Your task to perform on an android device: Clear all items from cart on bestbuy.com. Image 0: 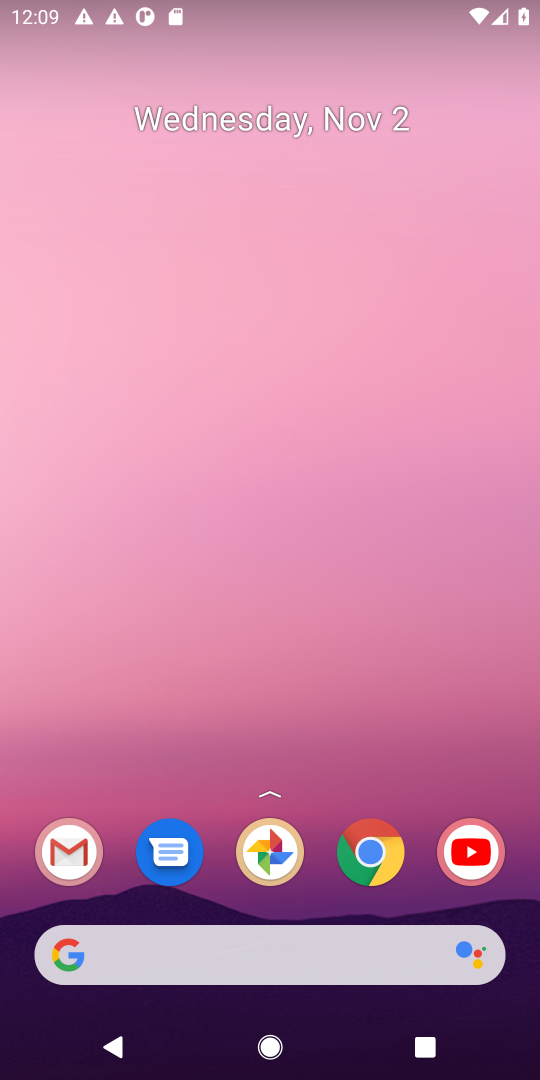
Step 0: click (71, 955)
Your task to perform on an android device: Clear all items from cart on bestbuy.com. Image 1: 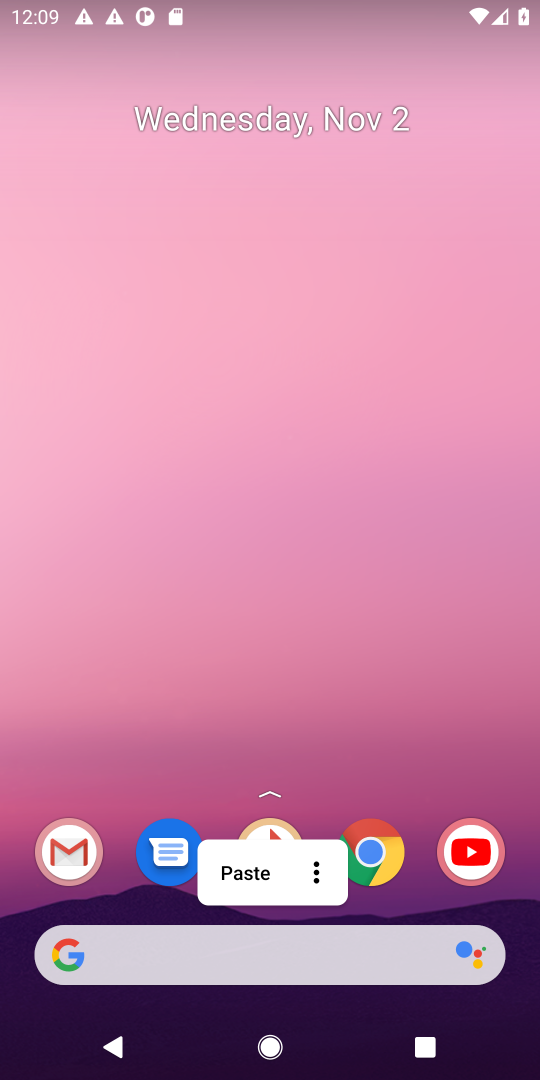
Step 1: click (77, 956)
Your task to perform on an android device: Clear all items from cart on bestbuy.com. Image 2: 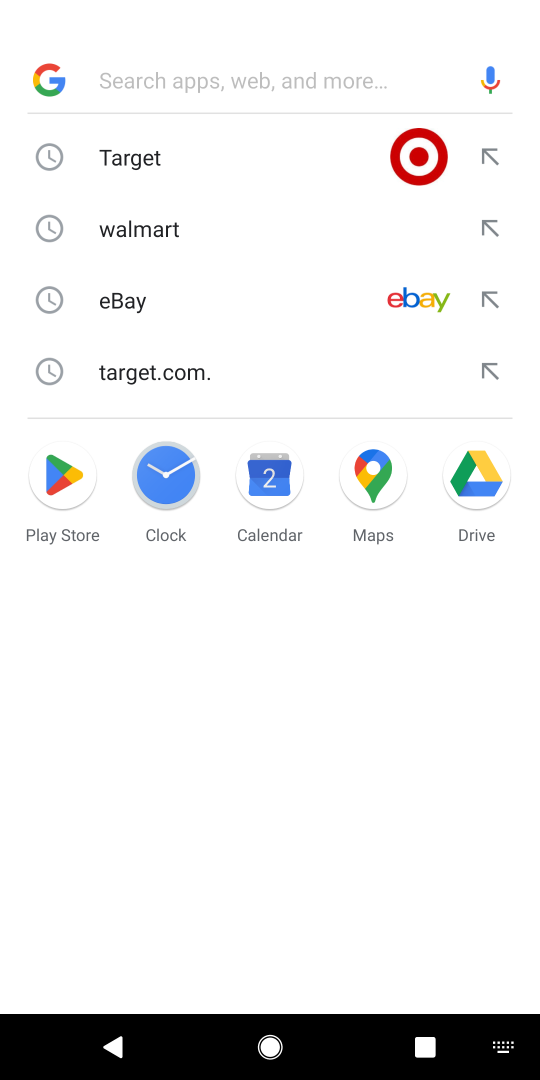
Step 2: type " bestbuy.com"
Your task to perform on an android device: Clear all items from cart on bestbuy.com. Image 3: 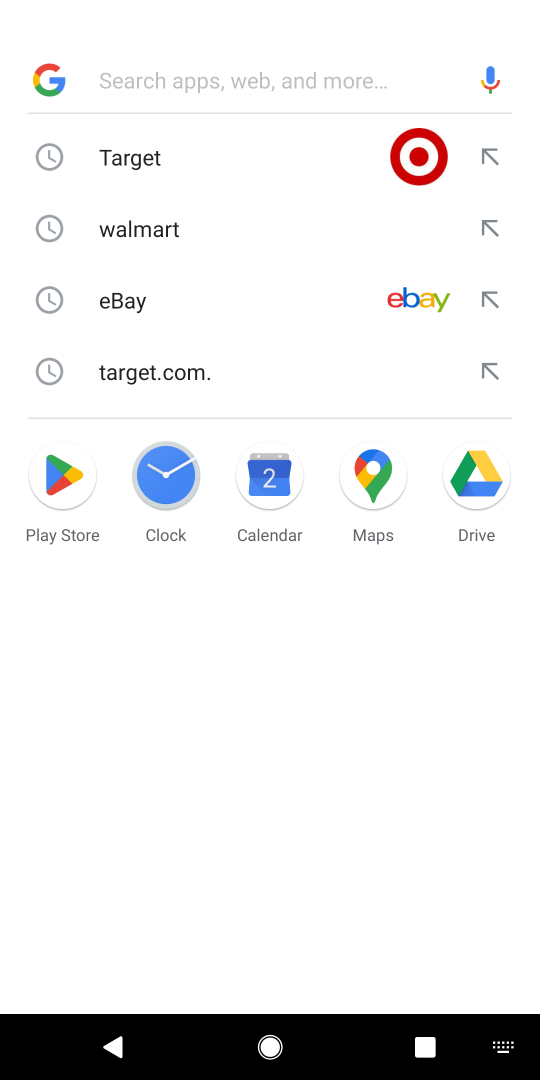
Step 3: click (168, 69)
Your task to perform on an android device: Clear all items from cart on bestbuy.com. Image 4: 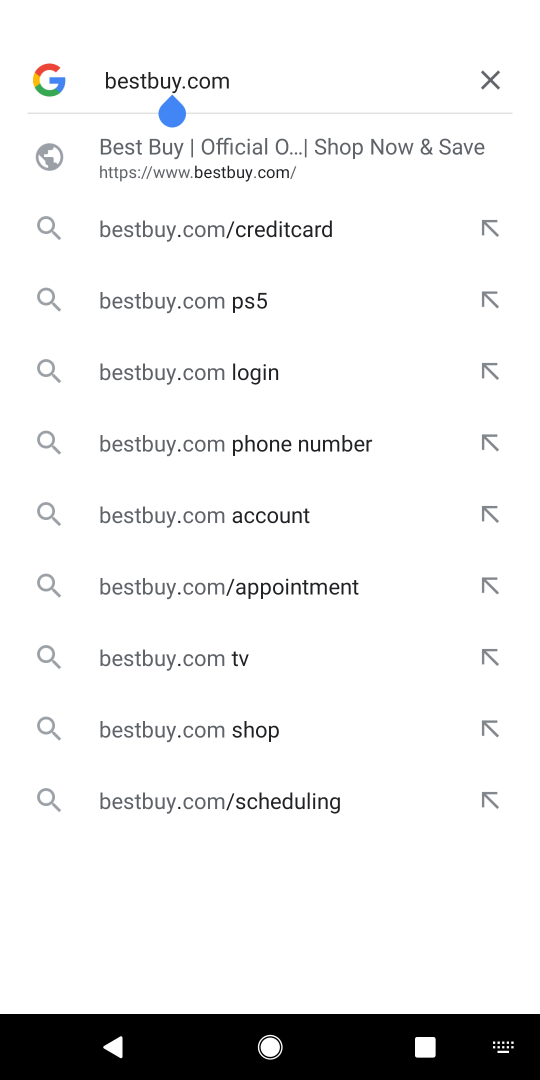
Step 4: press enter
Your task to perform on an android device: Clear all items from cart on bestbuy.com. Image 5: 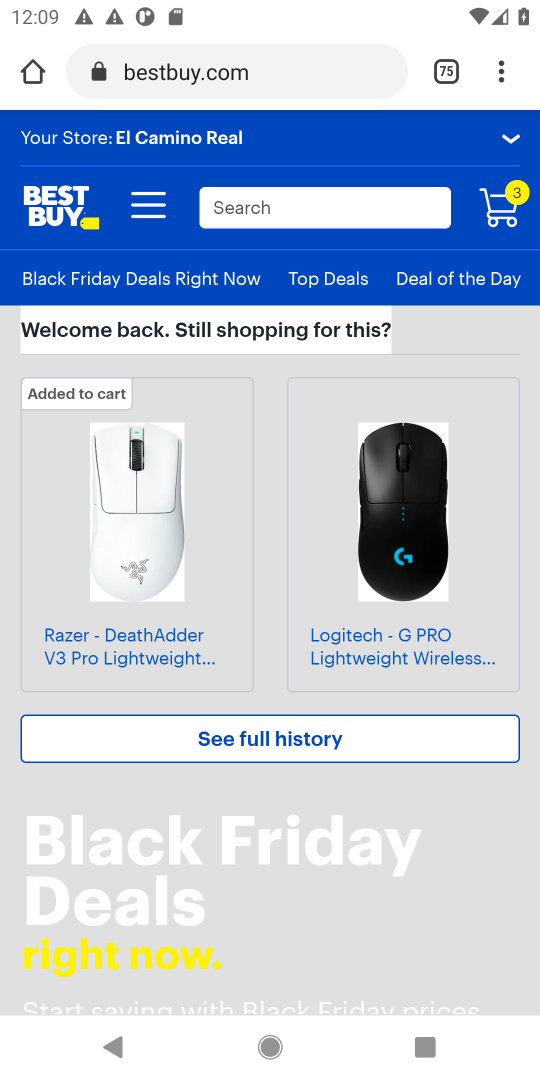
Step 5: click (504, 212)
Your task to perform on an android device: Clear all items from cart on bestbuy.com. Image 6: 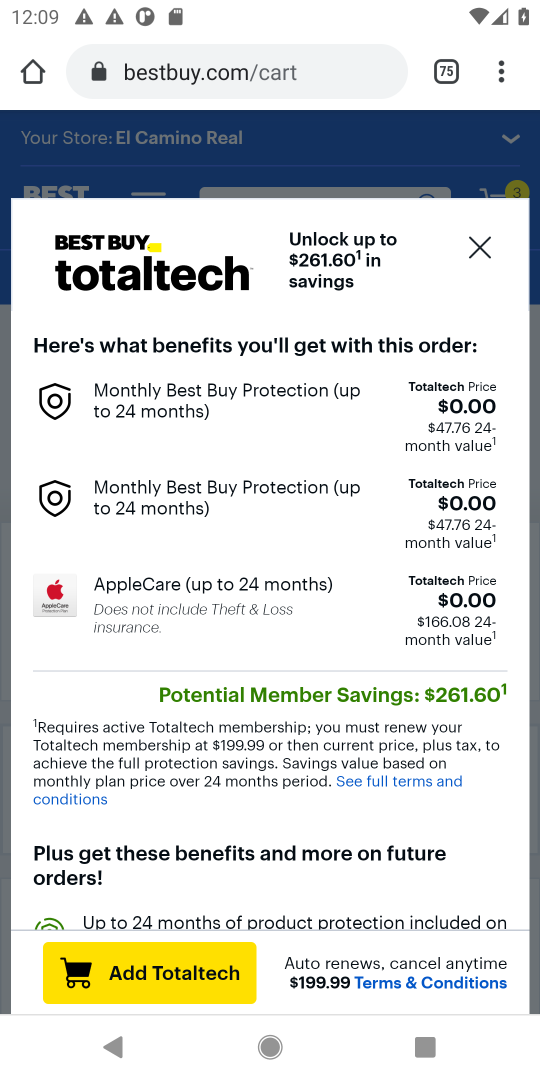
Step 6: click (487, 242)
Your task to perform on an android device: Clear all items from cart on bestbuy.com. Image 7: 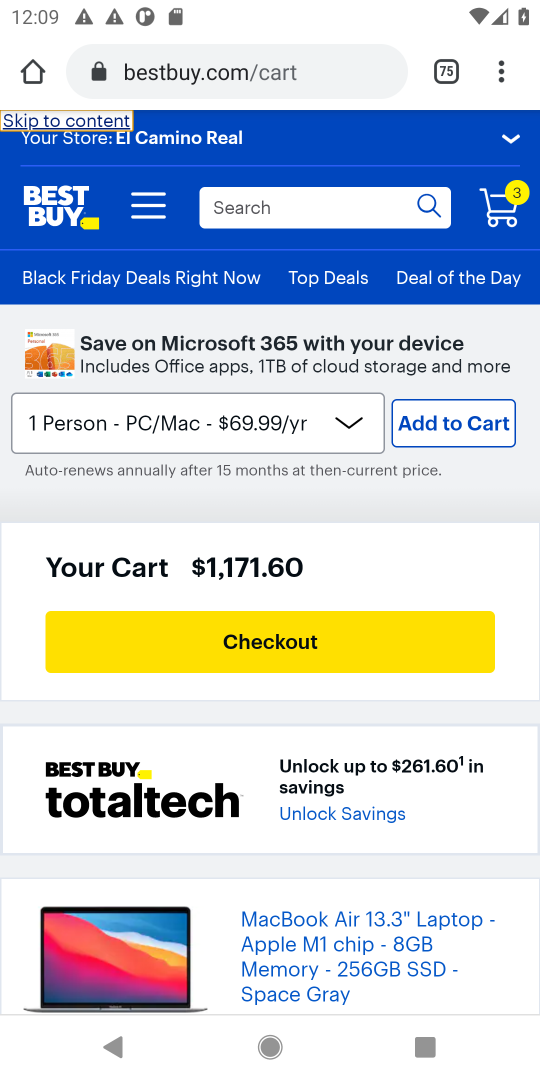
Step 7: drag from (399, 878) to (364, 267)
Your task to perform on an android device: Clear all items from cart on bestbuy.com. Image 8: 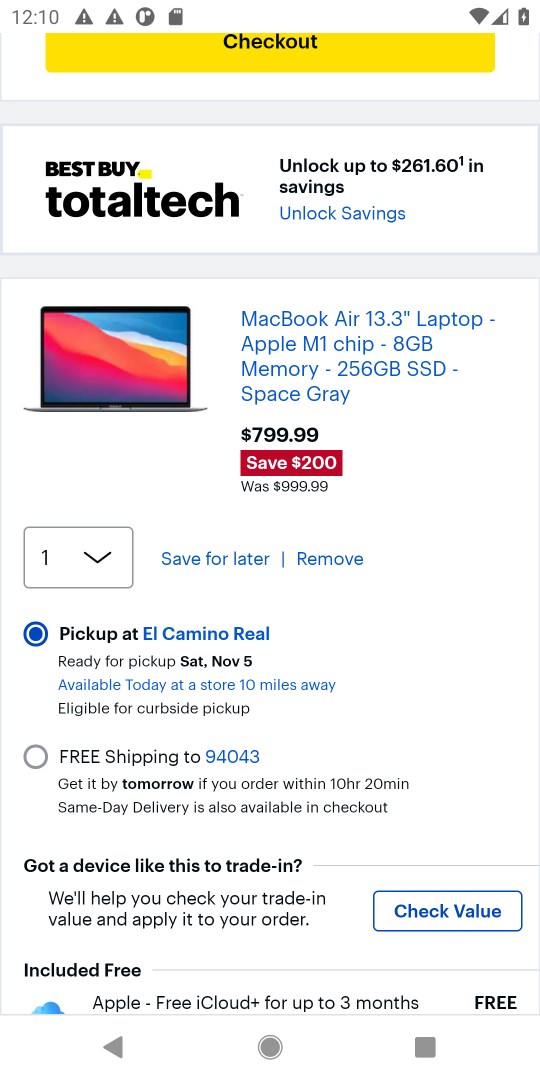
Step 8: click (245, 552)
Your task to perform on an android device: Clear all items from cart on bestbuy.com. Image 9: 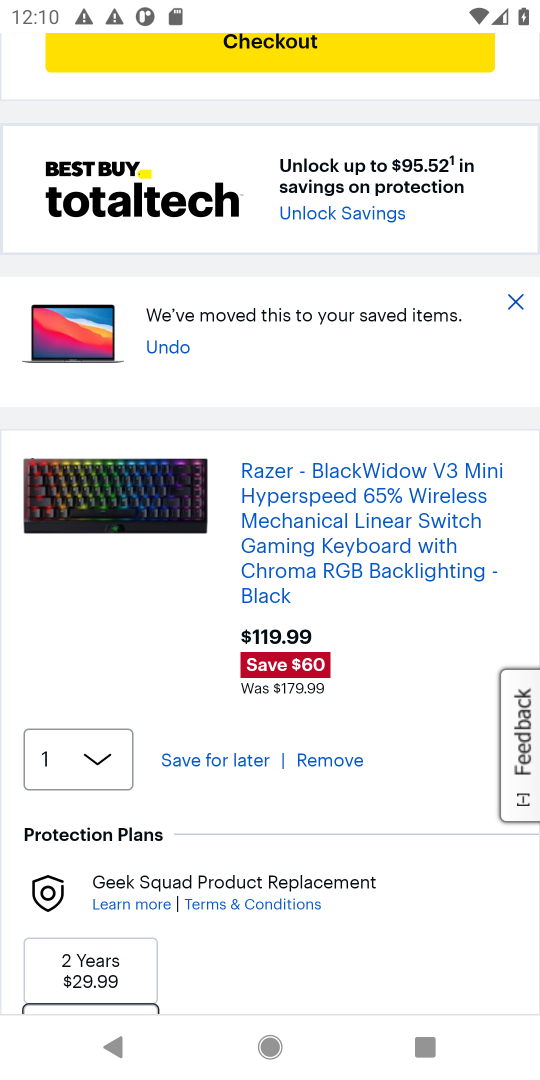
Step 9: click (217, 759)
Your task to perform on an android device: Clear all items from cart on bestbuy.com. Image 10: 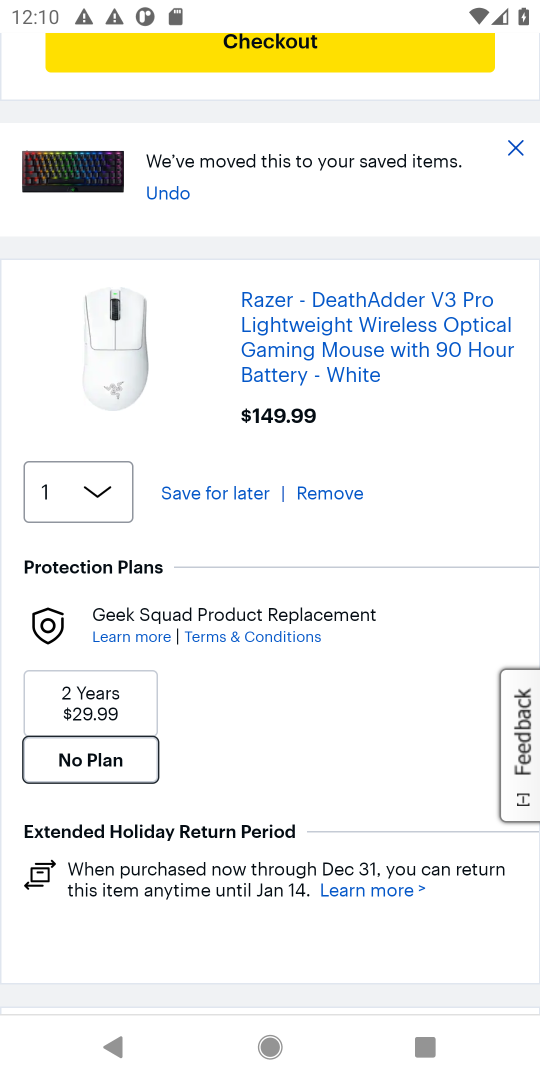
Step 10: click (229, 500)
Your task to perform on an android device: Clear all items from cart on bestbuy.com. Image 11: 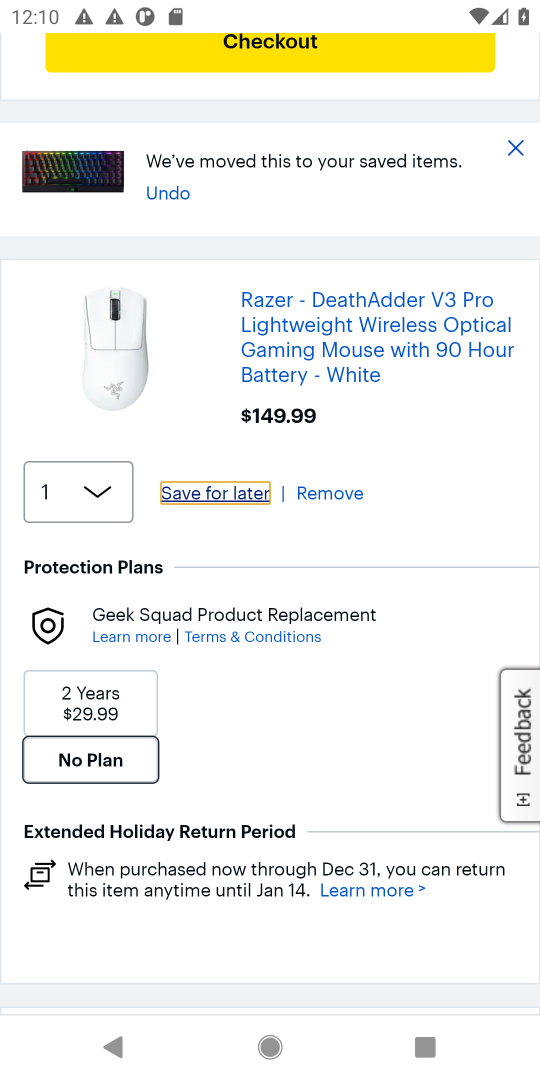
Step 11: click (229, 481)
Your task to perform on an android device: Clear all items from cart on bestbuy.com. Image 12: 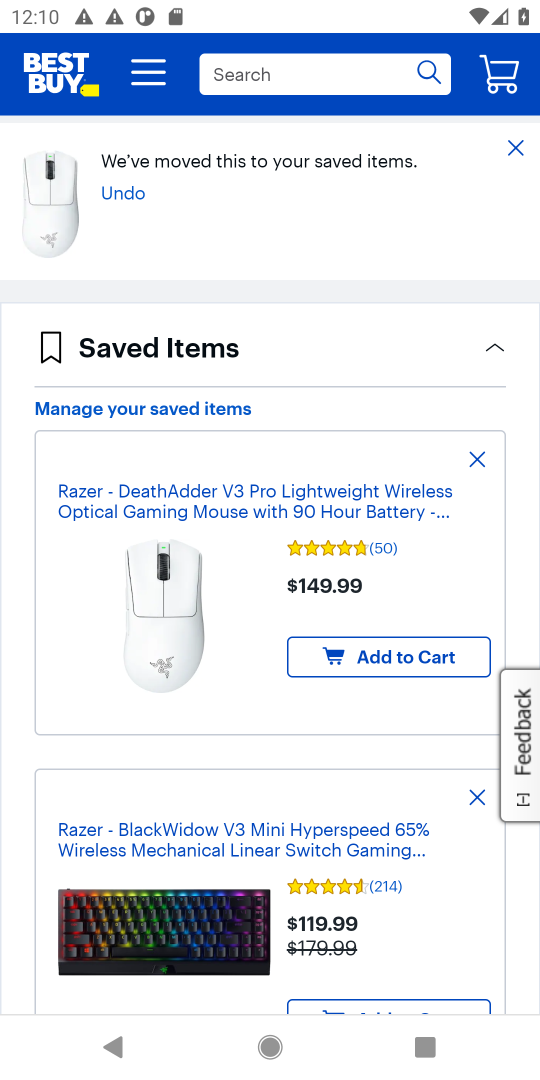
Step 12: task complete